Your task to perform on an android device: set an alarm Image 0: 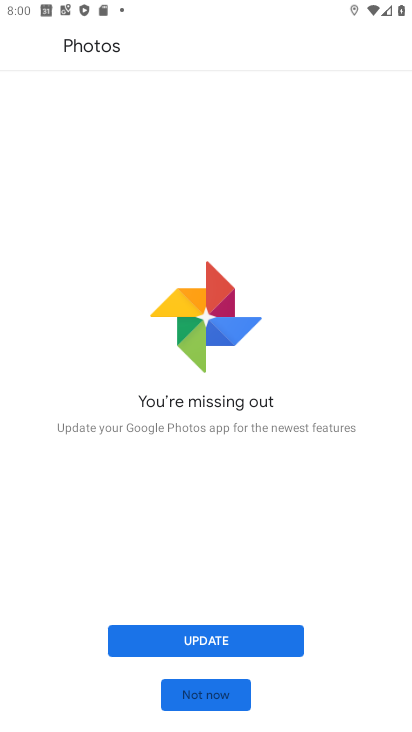
Step 0: press home button
Your task to perform on an android device: set an alarm Image 1: 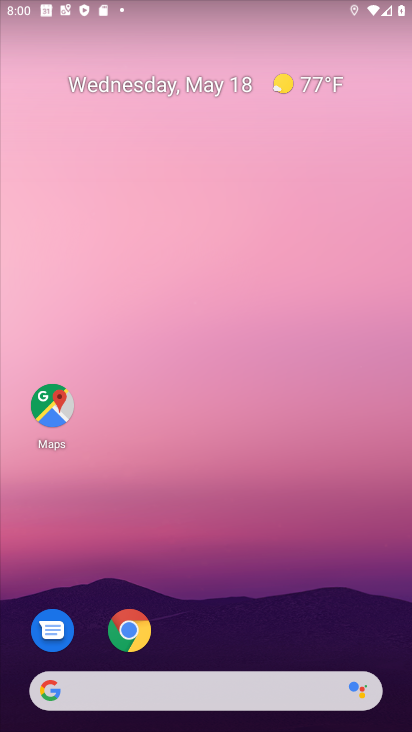
Step 1: drag from (303, 511) to (327, 162)
Your task to perform on an android device: set an alarm Image 2: 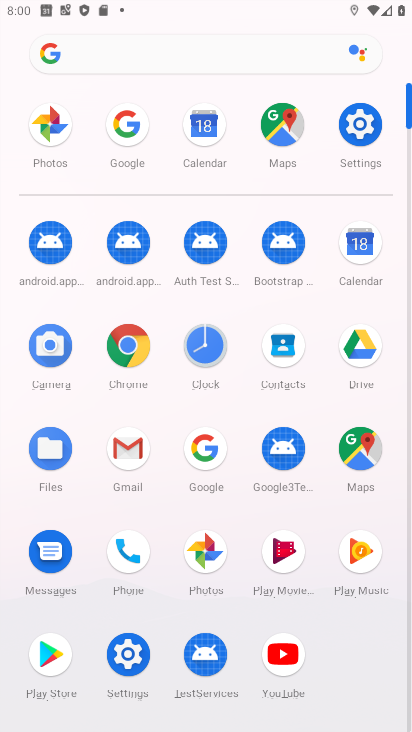
Step 2: click (203, 351)
Your task to perform on an android device: set an alarm Image 3: 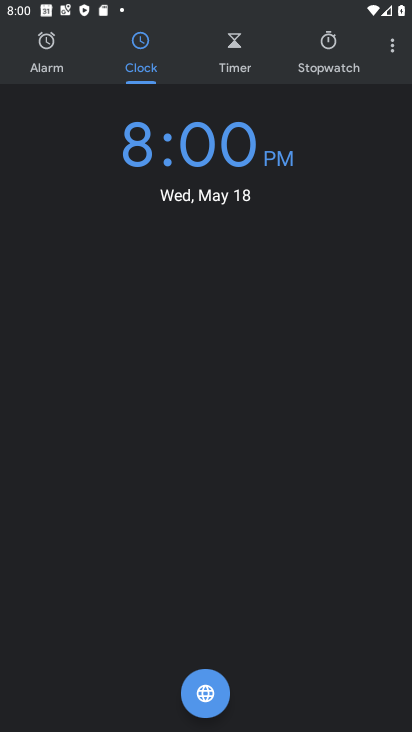
Step 3: click (49, 70)
Your task to perform on an android device: set an alarm Image 4: 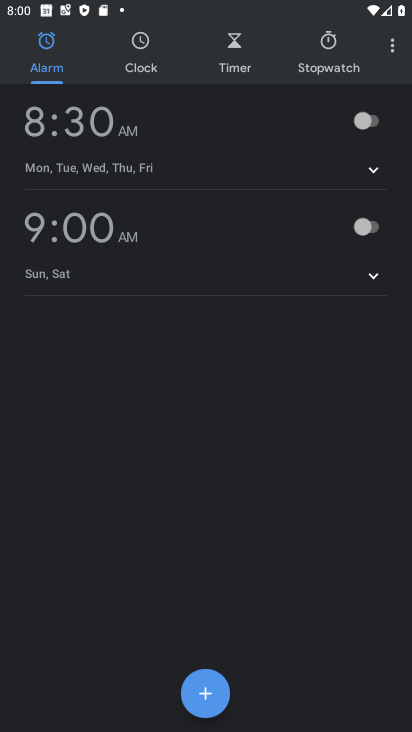
Step 4: click (212, 700)
Your task to perform on an android device: set an alarm Image 5: 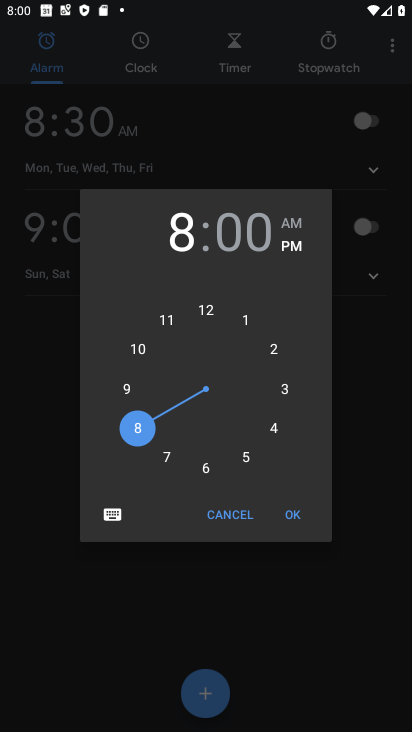
Step 5: click (285, 522)
Your task to perform on an android device: set an alarm Image 6: 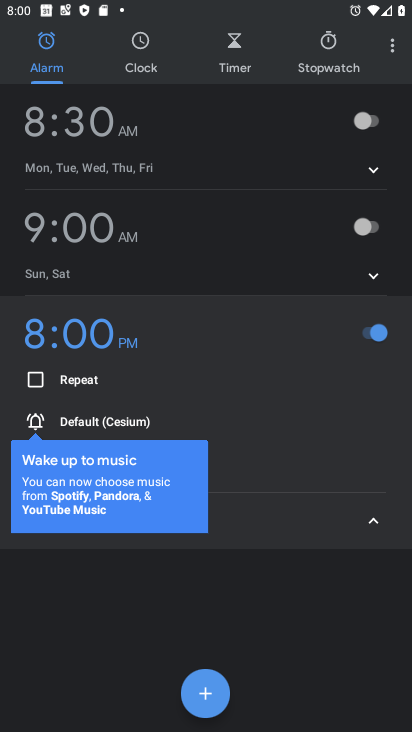
Step 6: click (286, 427)
Your task to perform on an android device: set an alarm Image 7: 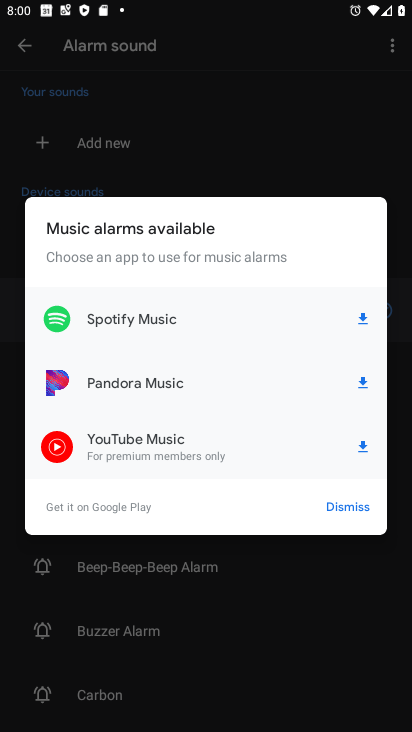
Step 7: task complete